Your task to perform on an android device: turn on sleep mode Image 0: 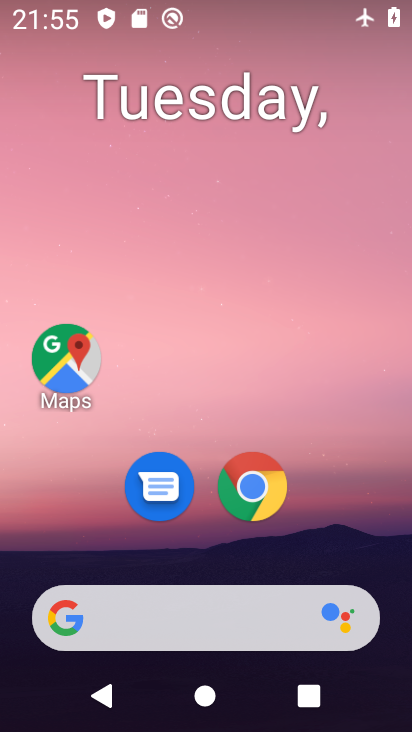
Step 0: press home button
Your task to perform on an android device: turn on sleep mode Image 1: 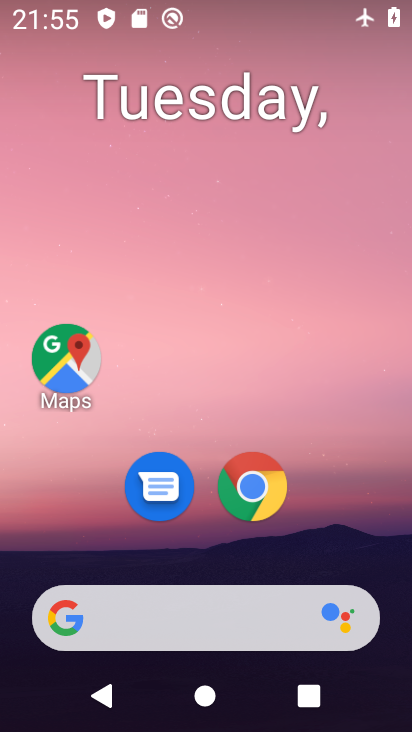
Step 1: drag from (362, 525) to (375, 75)
Your task to perform on an android device: turn on sleep mode Image 2: 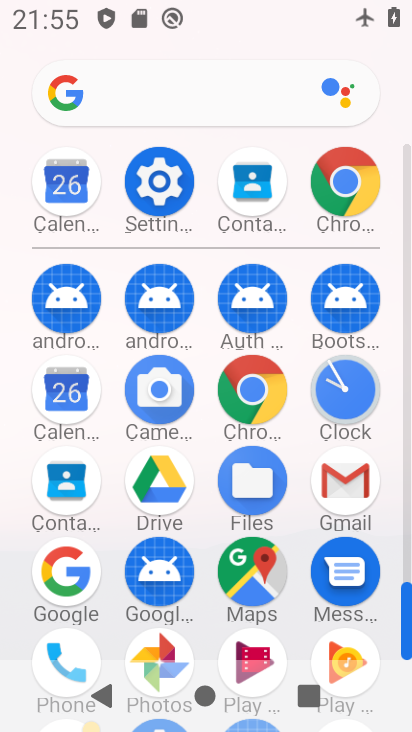
Step 2: click (164, 184)
Your task to perform on an android device: turn on sleep mode Image 3: 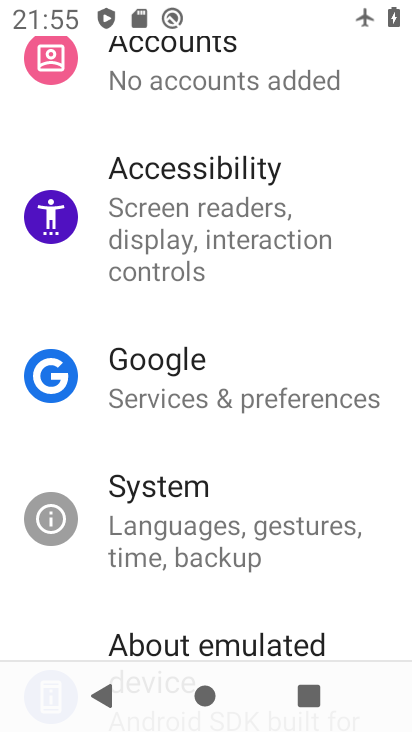
Step 3: drag from (359, 142) to (358, 287)
Your task to perform on an android device: turn on sleep mode Image 4: 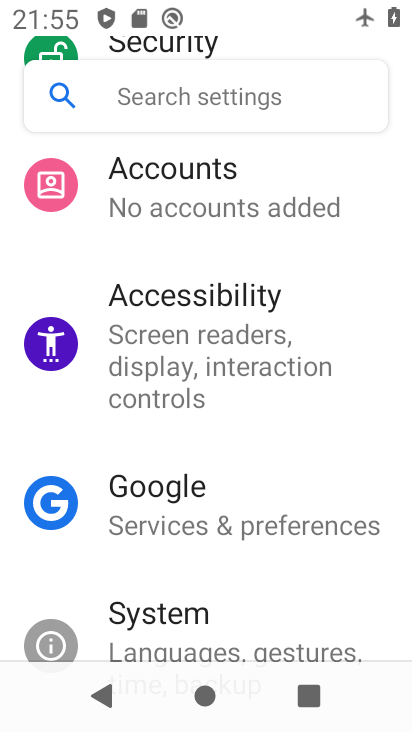
Step 4: drag from (377, 161) to (373, 346)
Your task to perform on an android device: turn on sleep mode Image 5: 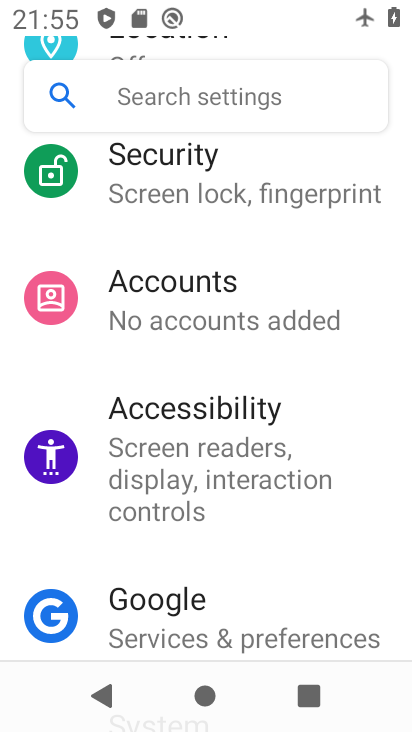
Step 5: drag from (393, 154) to (381, 282)
Your task to perform on an android device: turn on sleep mode Image 6: 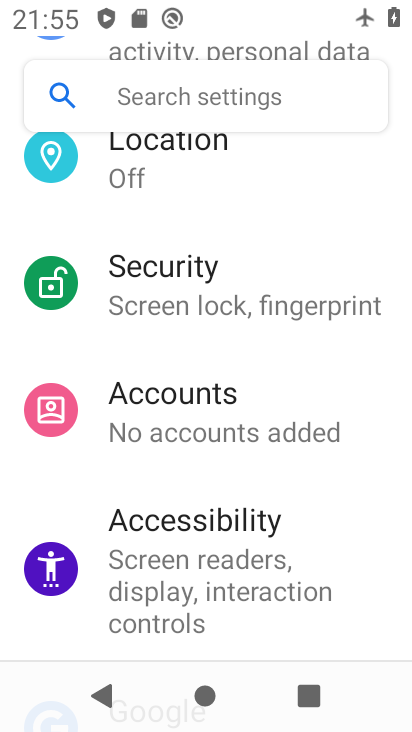
Step 6: drag from (374, 157) to (357, 291)
Your task to perform on an android device: turn on sleep mode Image 7: 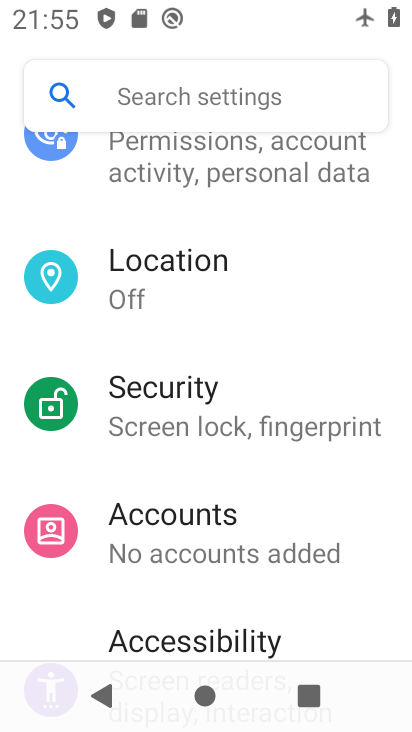
Step 7: drag from (372, 192) to (362, 339)
Your task to perform on an android device: turn on sleep mode Image 8: 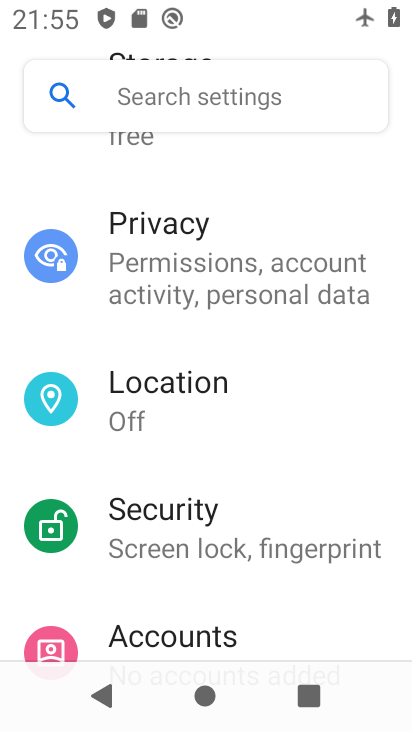
Step 8: drag from (358, 196) to (355, 353)
Your task to perform on an android device: turn on sleep mode Image 9: 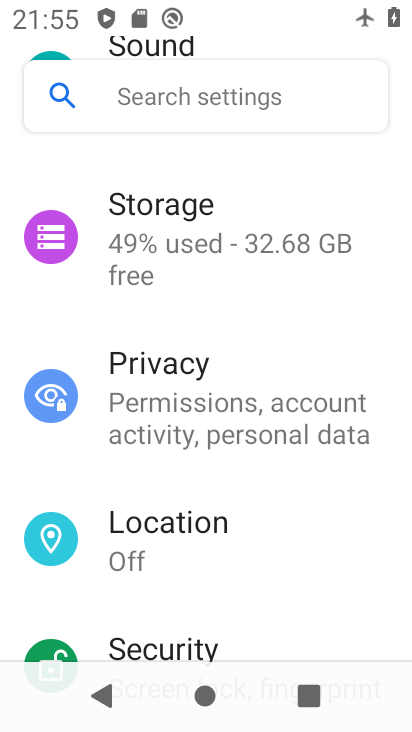
Step 9: drag from (379, 182) to (380, 333)
Your task to perform on an android device: turn on sleep mode Image 10: 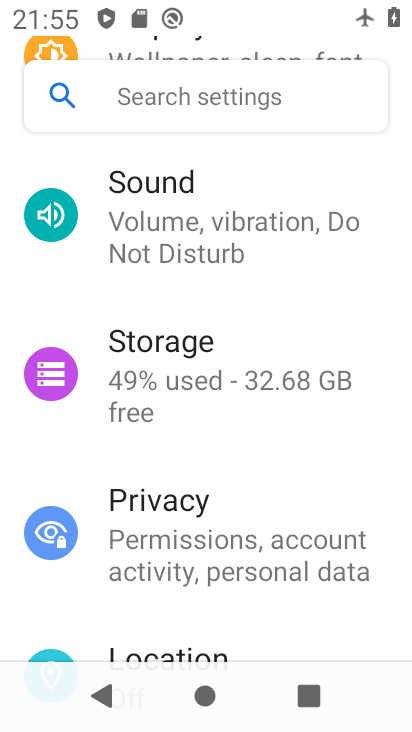
Step 10: drag from (379, 172) to (380, 315)
Your task to perform on an android device: turn on sleep mode Image 11: 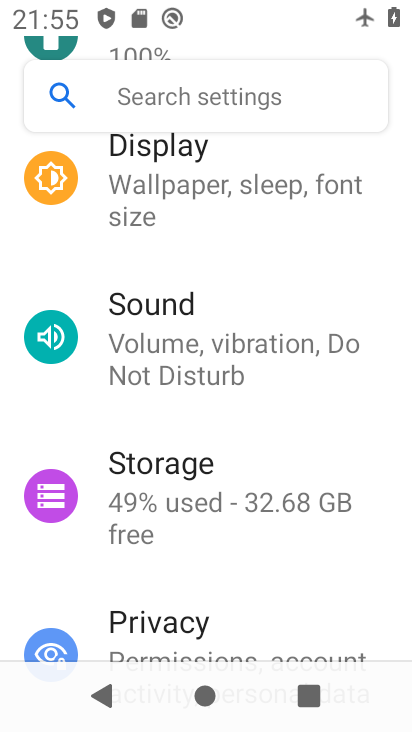
Step 11: drag from (376, 153) to (373, 289)
Your task to perform on an android device: turn on sleep mode Image 12: 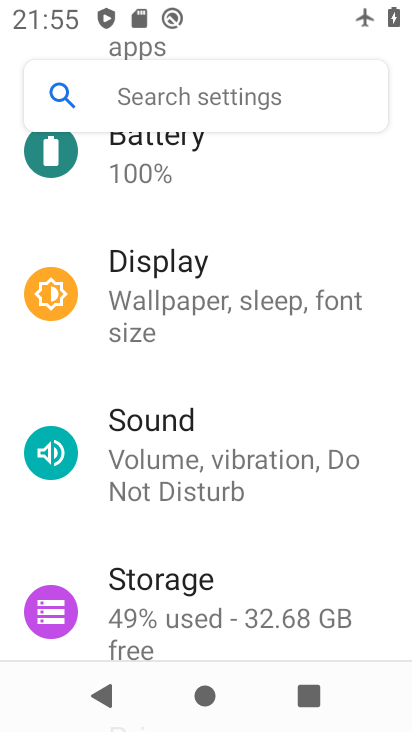
Step 12: drag from (372, 151) to (372, 321)
Your task to perform on an android device: turn on sleep mode Image 13: 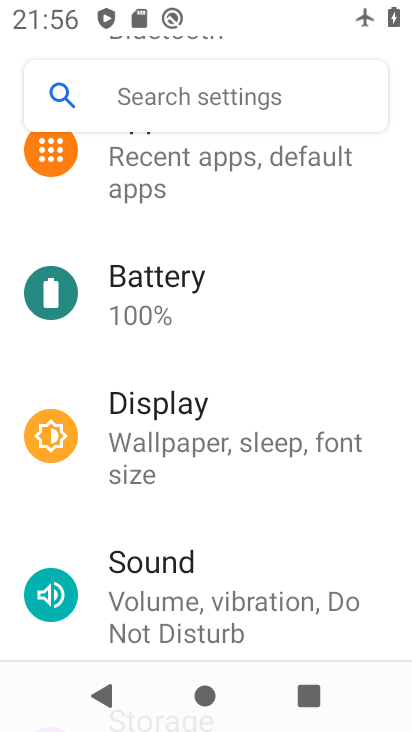
Step 13: click (216, 442)
Your task to perform on an android device: turn on sleep mode Image 14: 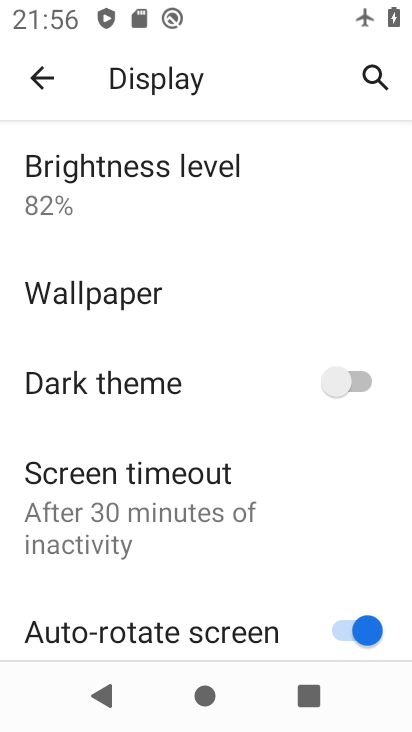
Step 14: drag from (291, 518) to (294, 419)
Your task to perform on an android device: turn on sleep mode Image 15: 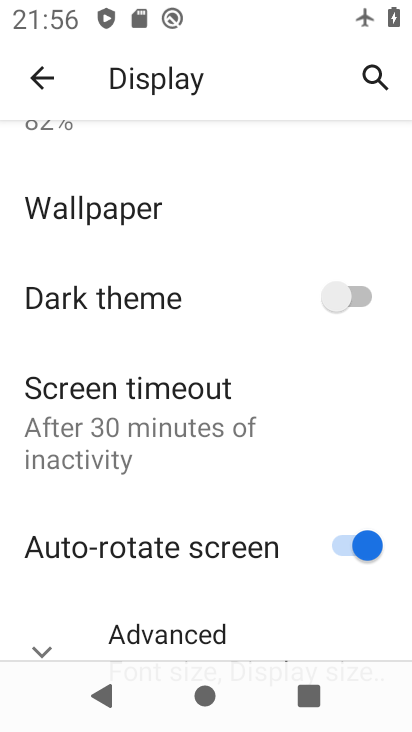
Step 15: drag from (282, 581) to (291, 430)
Your task to perform on an android device: turn on sleep mode Image 16: 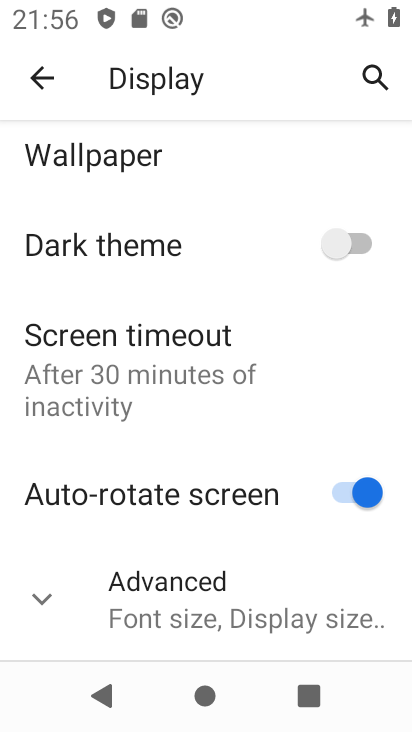
Step 16: click (275, 599)
Your task to perform on an android device: turn on sleep mode Image 17: 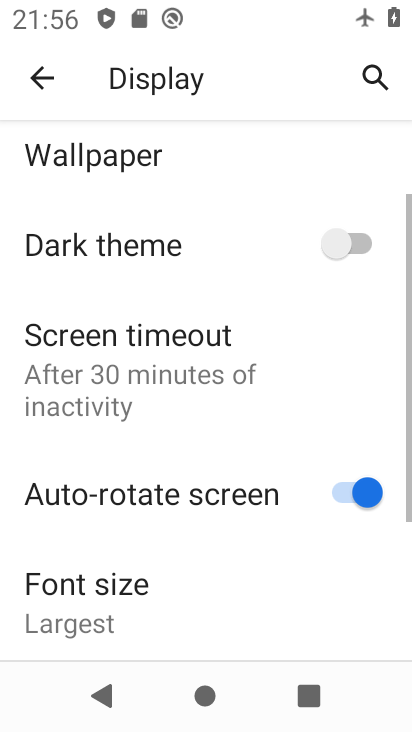
Step 17: task complete